Your task to perform on an android device: Go to Android settings Image 0: 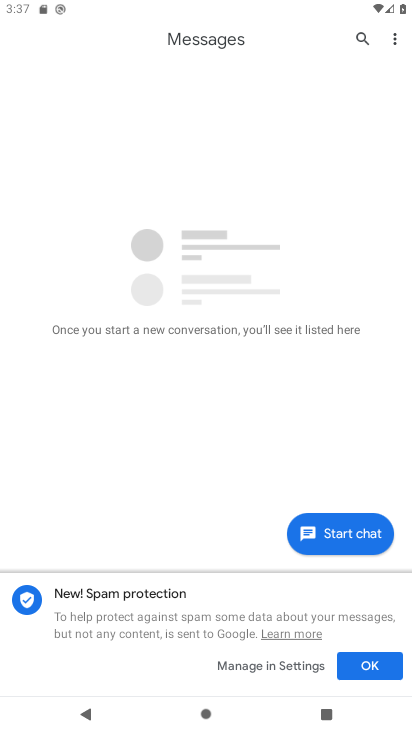
Step 0: press home button
Your task to perform on an android device: Go to Android settings Image 1: 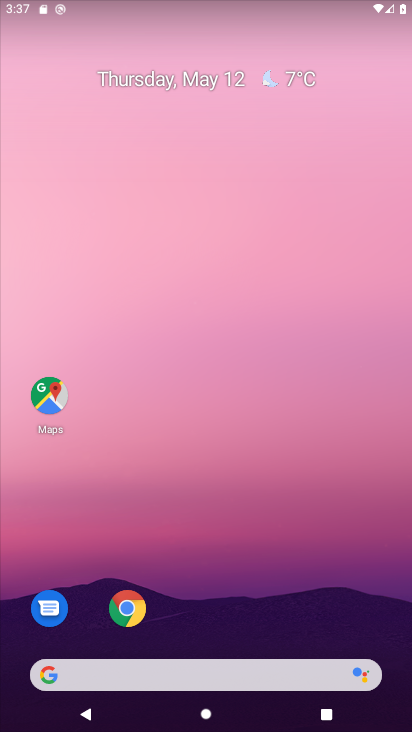
Step 1: drag from (239, 605) to (253, 60)
Your task to perform on an android device: Go to Android settings Image 2: 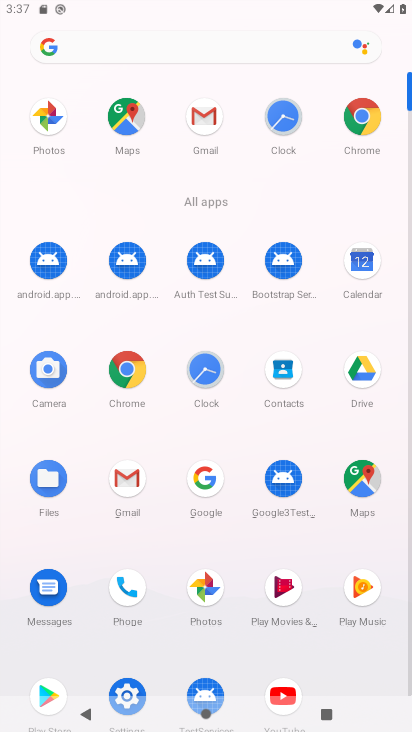
Step 2: click (181, 461)
Your task to perform on an android device: Go to Android settings Image 3: 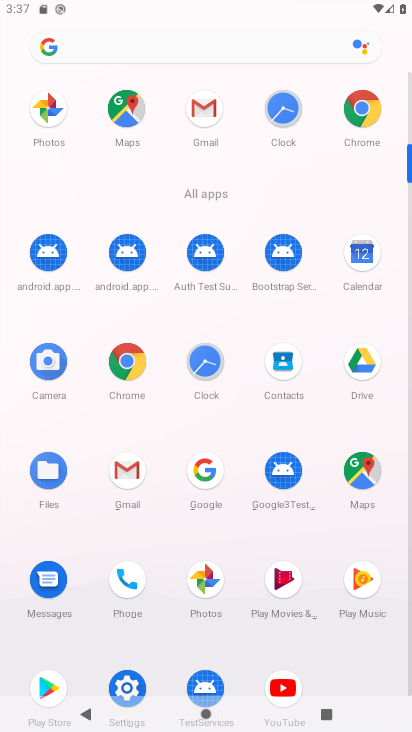
Step 3: click (133, 672)
Your task to perform on an android device: Go to Android settings Image 4: 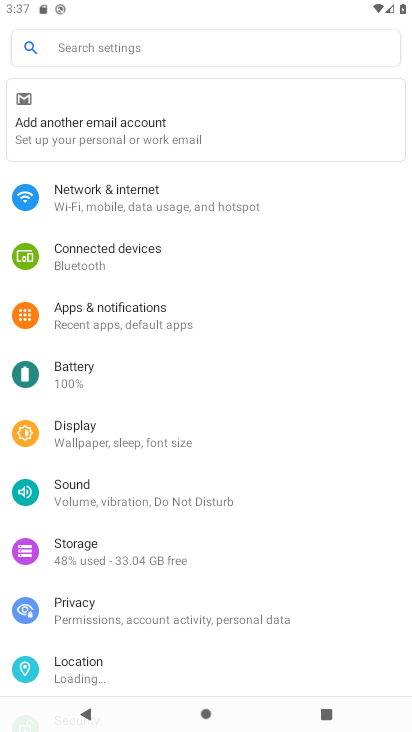
Step 4: drag from (221, 650) to (242, 160)
Your task to perform on an android device: Go to Android settings Image 5: 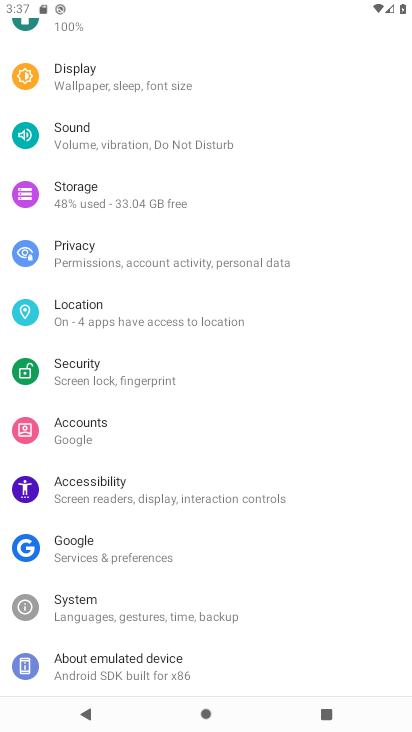
Step 5: click (148, 671)
Your task to perform on an android device: Go to Android settings Image 6: 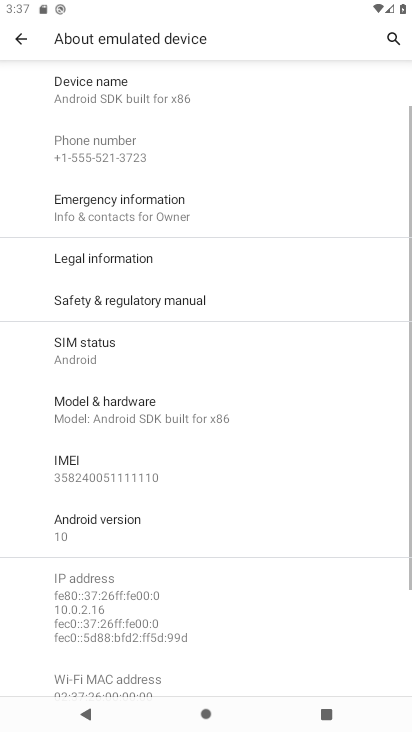
Step 6: task complete